Your task to perform on an android device: Go to sound settings Image 0: 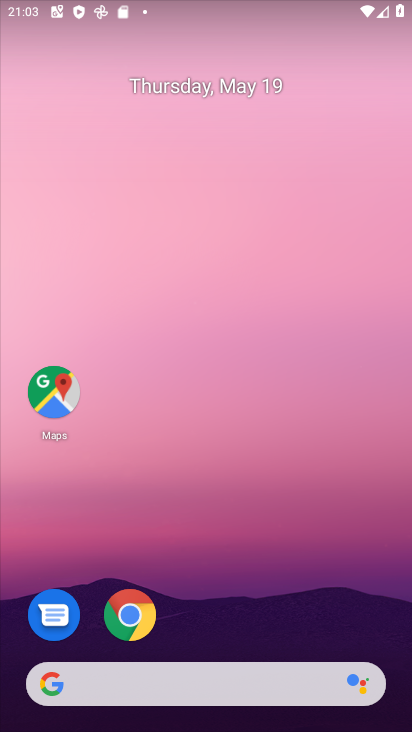
Step 0: drag from (232, 609) to (257, 132)
Your task to perform on an android device: Go to sound settings Image 1: 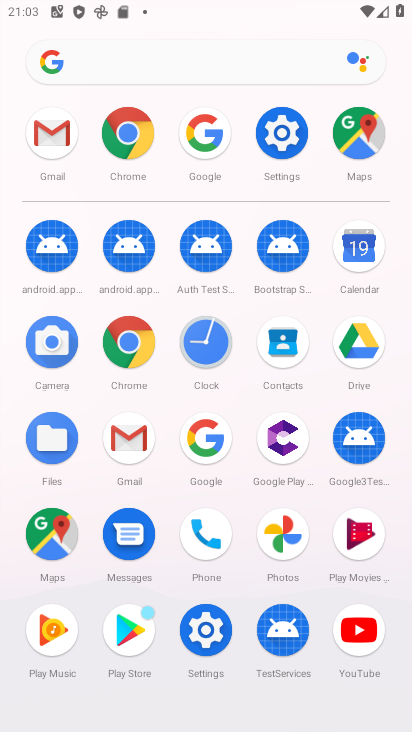
Step 1: click (281, 139)
Your task to perform on an android device: Go to sound settings Image 2: 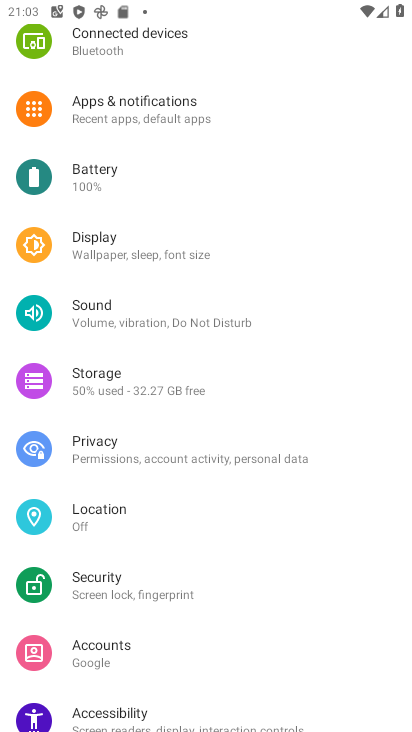
Step 2: click (145, 321)
Your task to perform on an android device: Go to sound settings Image 3: 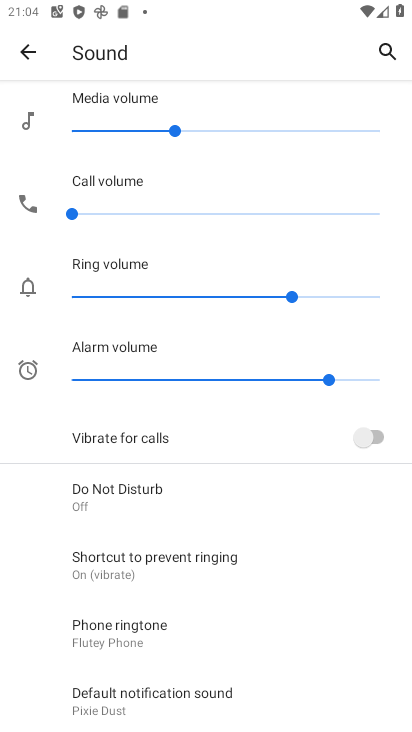
Step 3: task complete